Your task to perform on an android device: set the timer Image 0: 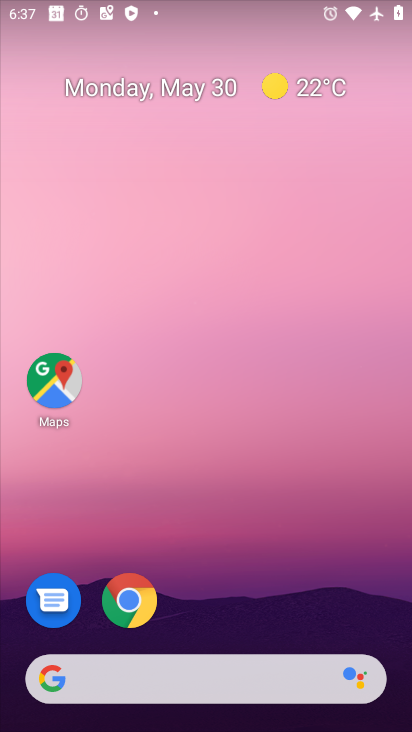
Step 0: press home button
Your task to perform on an android device: set the timer Image 1: 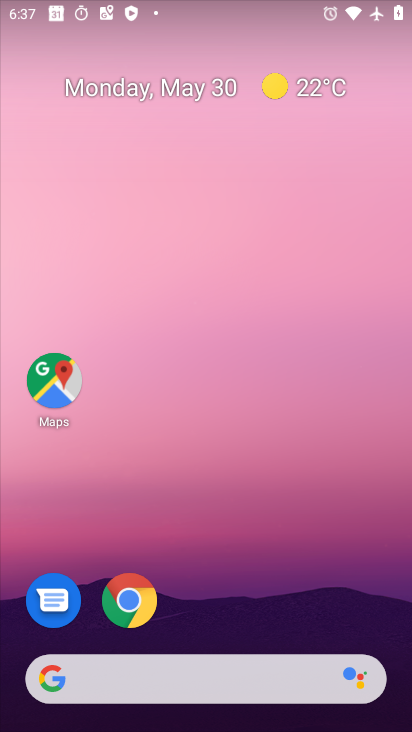
Step 1: drag from (267, 645) to (267, 110)
Your task to perform on an android device: set the timer Image 2: 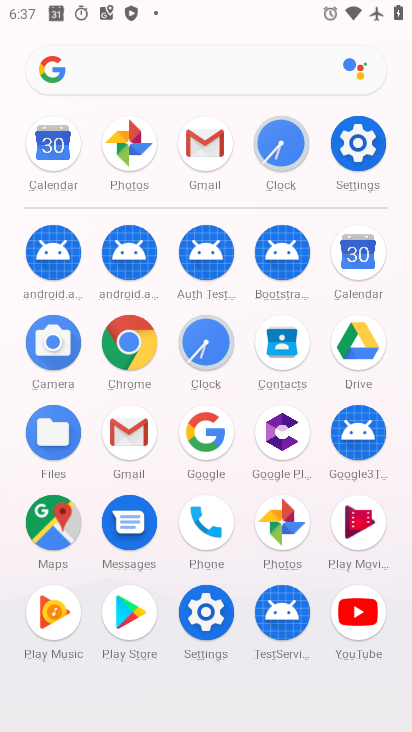
Step 2: click (203, 333)
Your task to perform on an android device: set the timer Image 3: 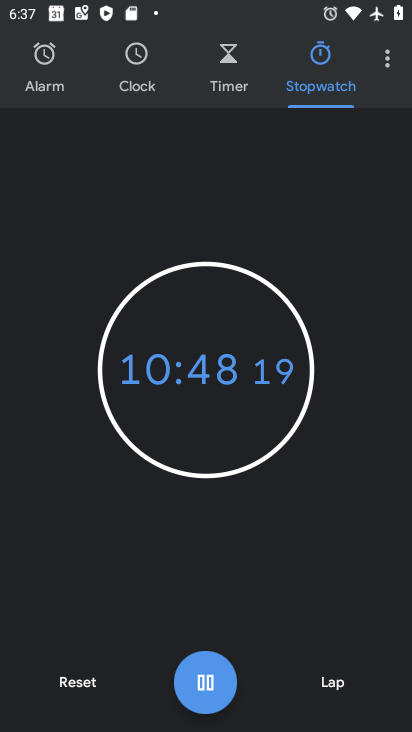
Step 3: click (228, 58)
Your task to perform on an android device: set the timer Image 4: 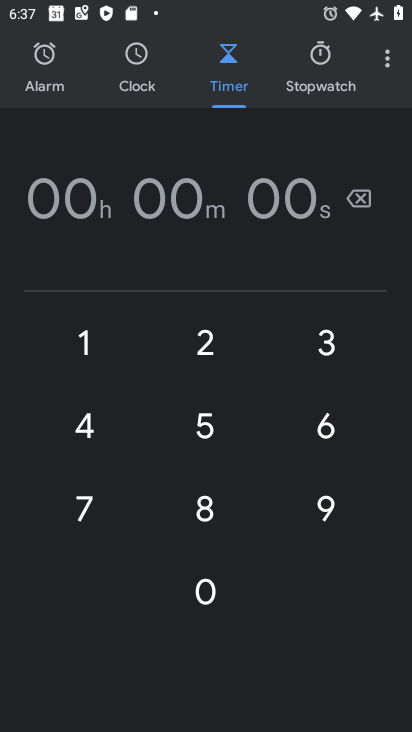
Step 4: click (84, 366)
Your task to perform on an android device: set the timer Image 5: 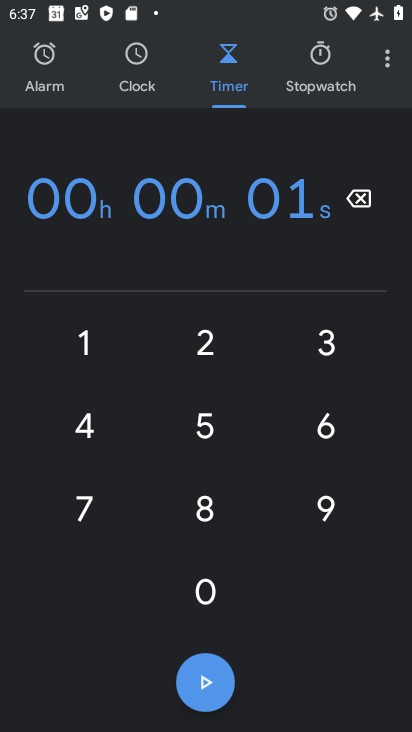
Step 5: click (209, 358)
Your task to perform on an android device: set the timer Image 6: 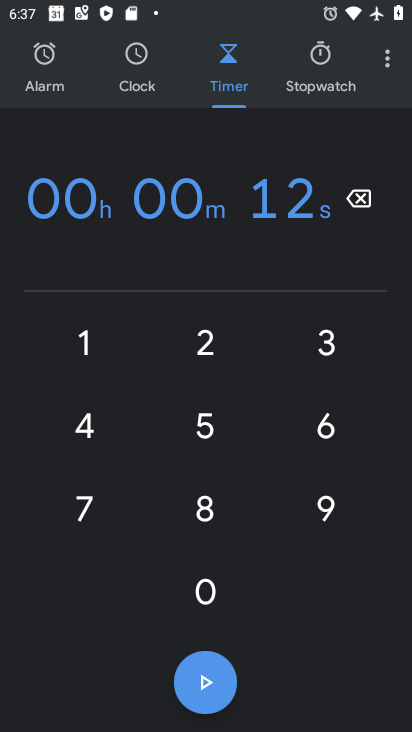
Step 6: click (135, 419)
Your task to perform on an android device: set the timer Image 7: 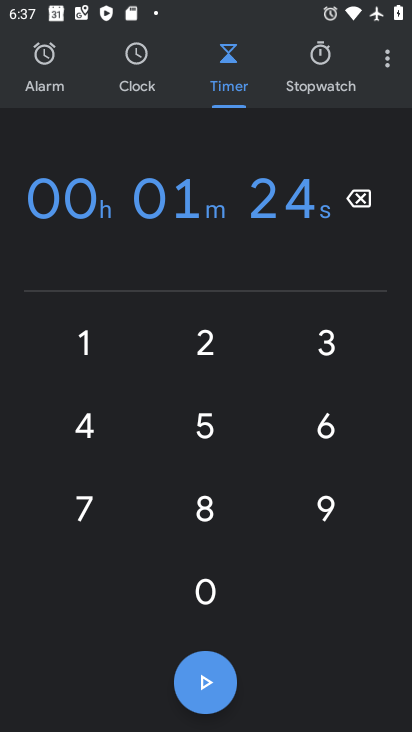
Step 7: click (221, 429)
Your task to perform on an android device: set the timer Image 8: 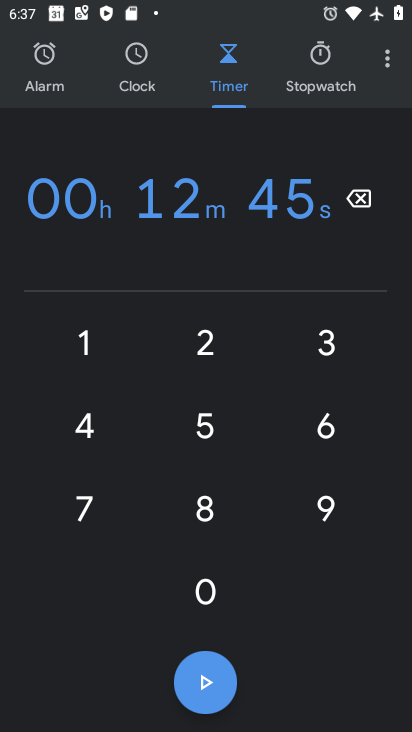
Step 8: click (221, 497)
Your task to perform on an android device: set the timer Image 9: 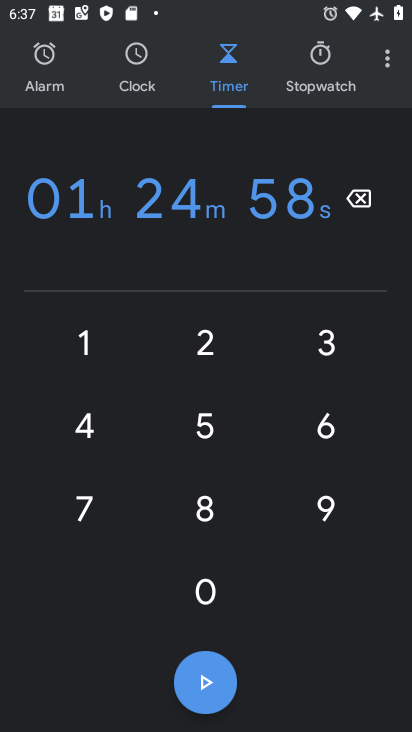
Step 9: click (313, 518)
Your task to perform on an android device: set the timer Image 10: 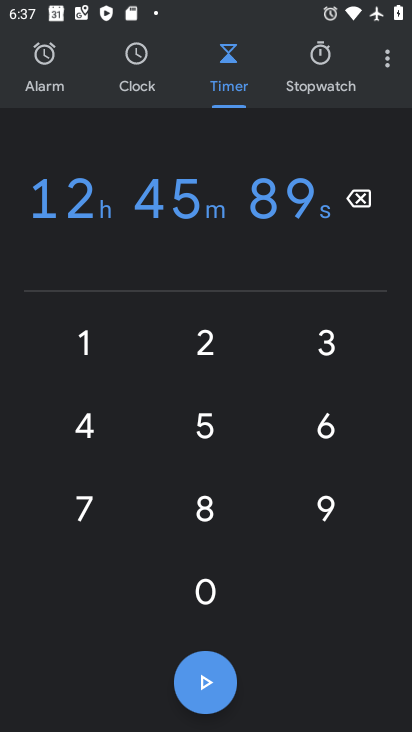
Step 10: task complete